Your task to perform on an android device: see sites visited before in the chrome app Image 0: 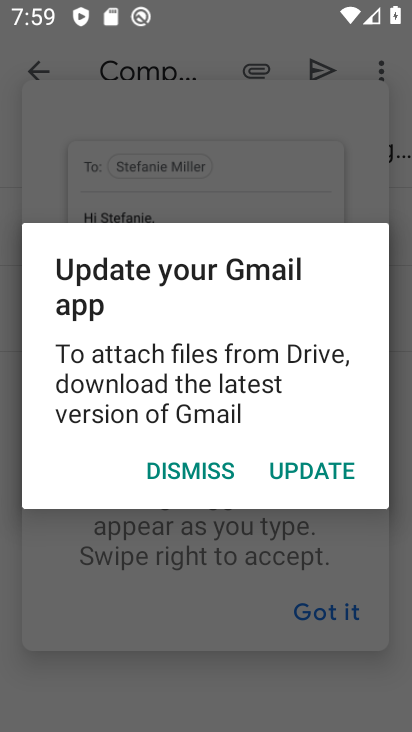
Step 0: press home button
Your task to perform on an android device: see sites visited before in the chrome app Image 1: 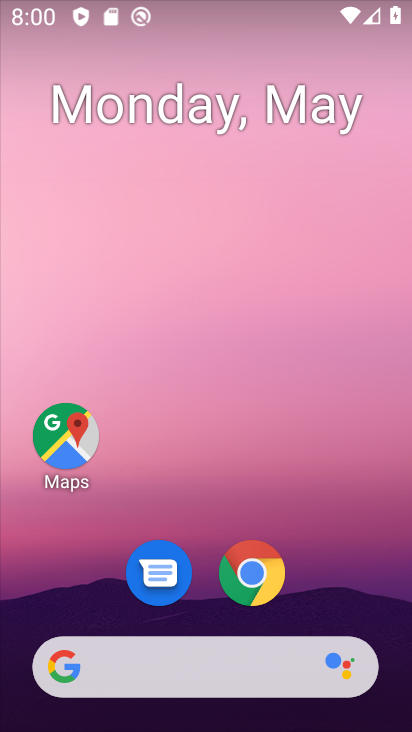
Step 1: drag from (354, 562) to (354, 45)
Your task to perform on an android device: see sites visited before in the chrome app Image 2: 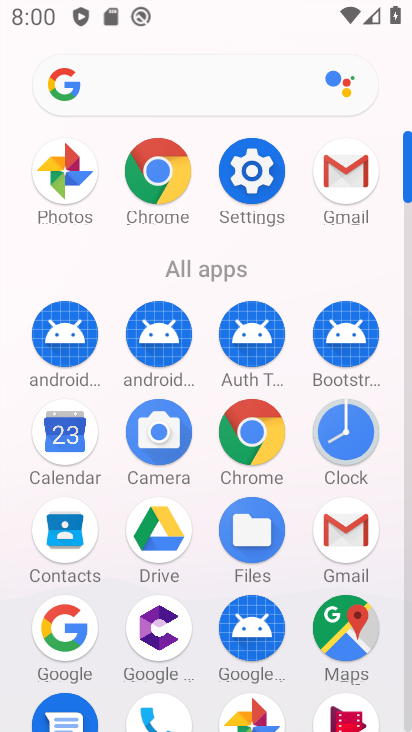
Step 2: click (149, 174)
Your task to perform on an android device: see sites visited before in the chrome app Image 3: 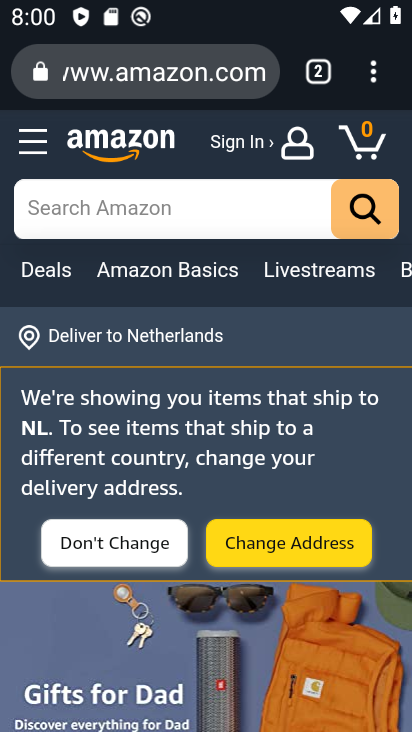
Step 3: click (386, 75)
Your task to perform on an android device: see sites visited before in the chrome app Image 4: 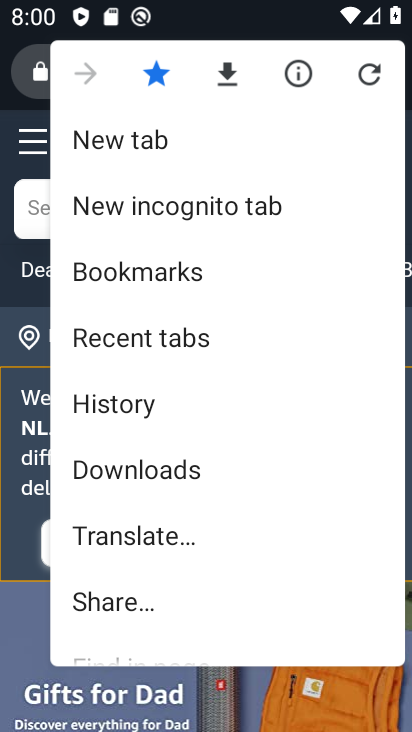
Step 4: click (203, 333)
Your task to perform on an android device: see sites visited before in the chrome app Image 5: 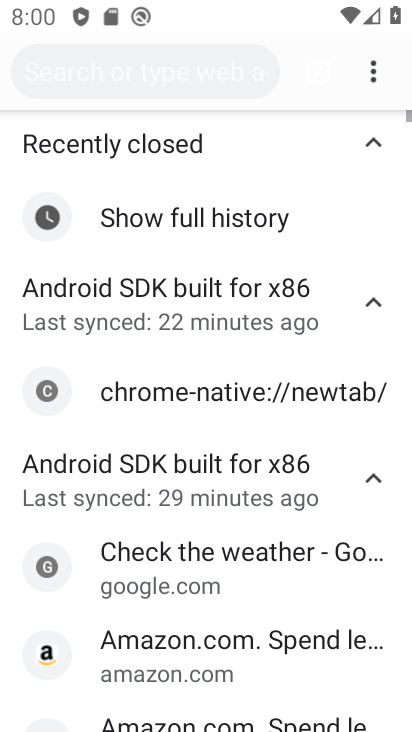
Step 5: task complete